Your task to perform on an android device: search for starred emails in the gmail app Image 0: 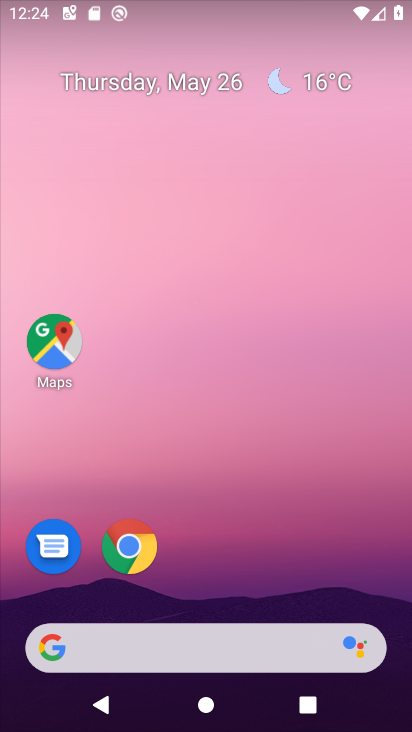
Step 0: drag from (193, 513) to (275, 225)
Your task to perform on an android device: search for starred emails in the gmail app Image 1: 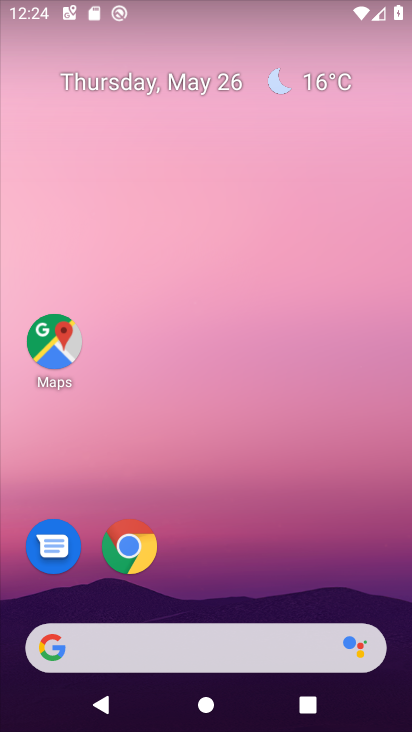
Step 1: drag from (203, 587) to (316, 114)
Your task to perform on an android device: search for starred emails in the gmail app Image 2: 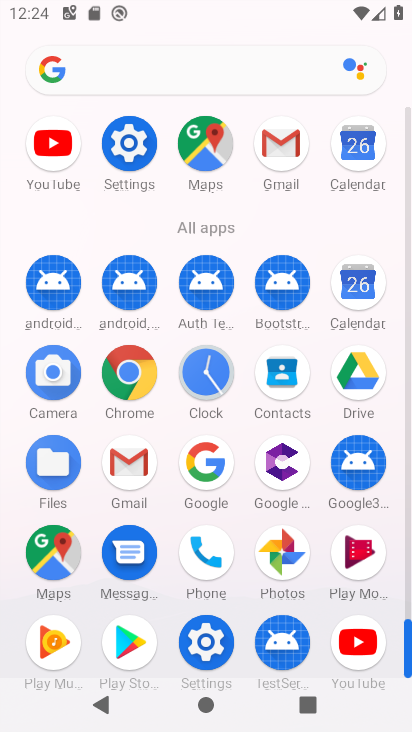
Step 2: click (282, 156)
Your task to perform on an android device: search for starred emails in the gmail app Image 3: 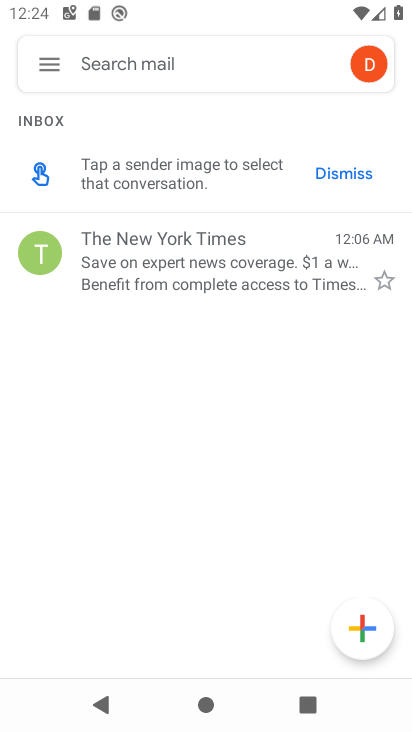
Step 3: click (49, 71)
Your task to perform on an android device: search for starred emails in the gmail app Image 4: 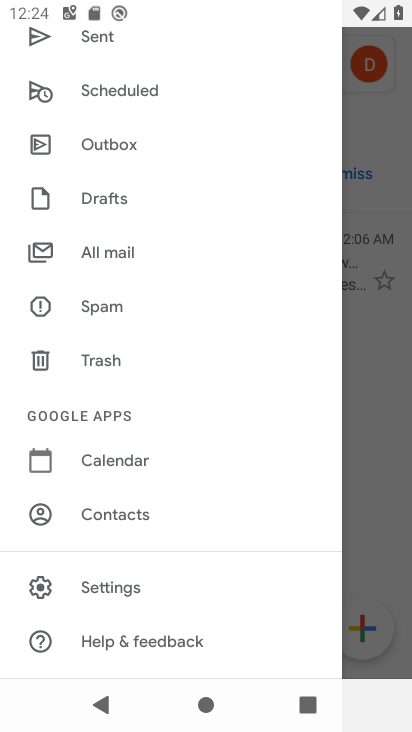
Step 4: drag from (108, 138) to (142, 600)
Your task to perform on an android device: search for starred emails in the gmail app Image 5: 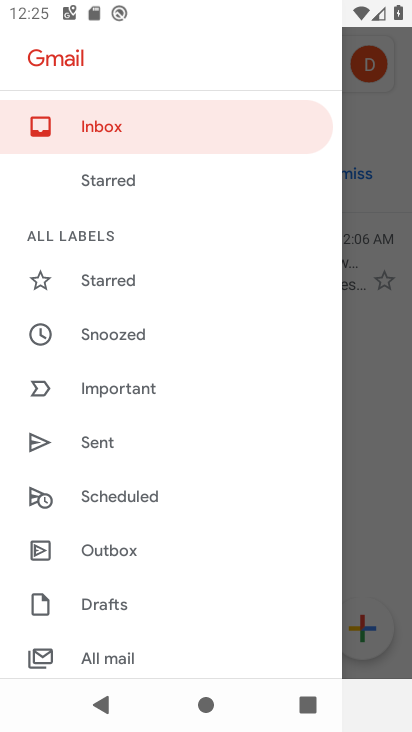
Step 5: click (114, 283)
Your task to perform on an android device: search for starred emails in the gmail app Image 6: 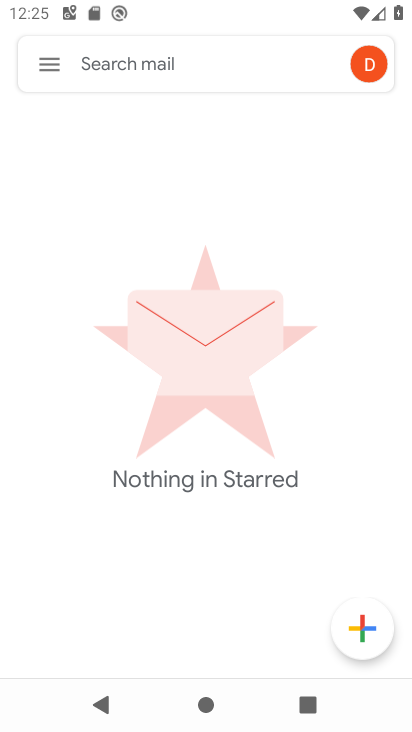
Step 6: task complete